Your task to perform on an android device: Go to Wikipedia Image 0: 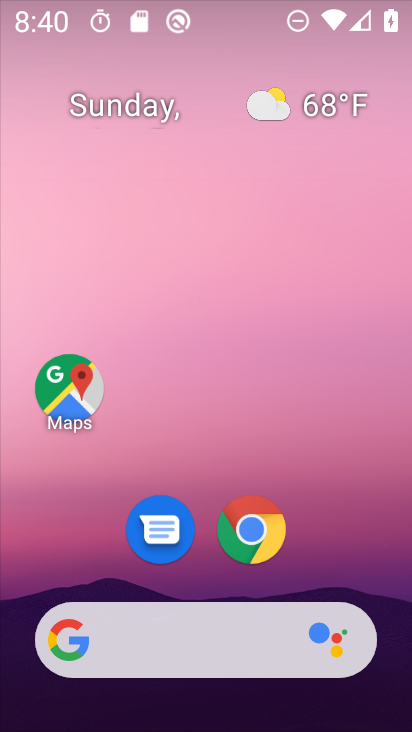
Step 0: press home button
Your task to perform on an android device: Go to Wikipedia Image 1: 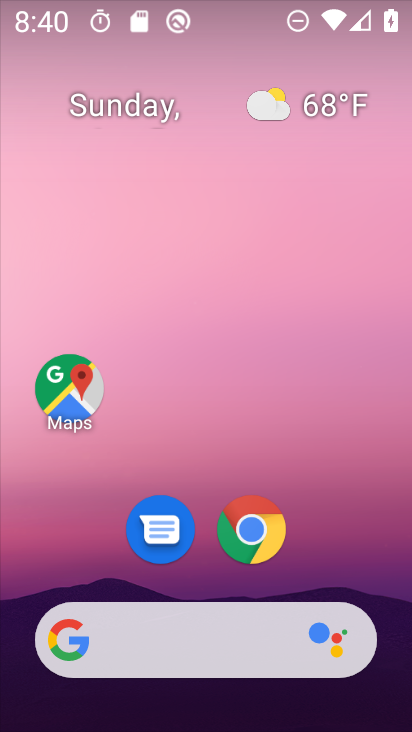
Step 1: press home button
Your task to perform on an android device: Go to Wikipedia Image 2: 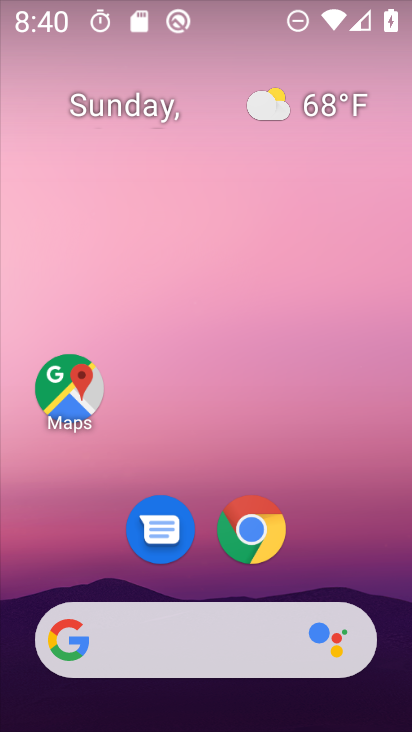
Step 2: click (248, 521)
Your task to perform on an android device: Go to Wikipedia Image 3: 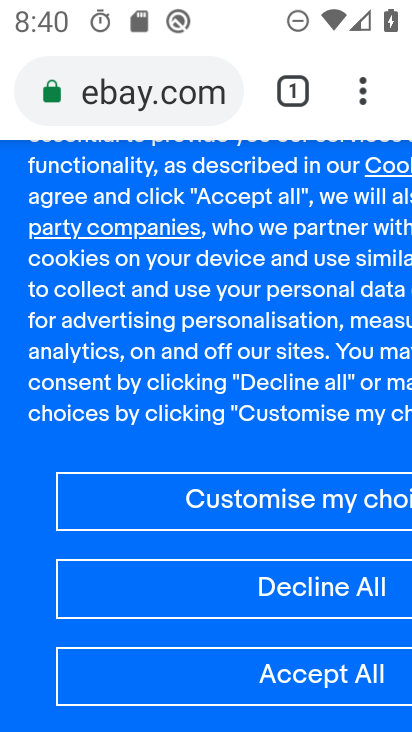
Step 3: press home button
Your task to perform on an android device: Go to Wikipedia Image 4: 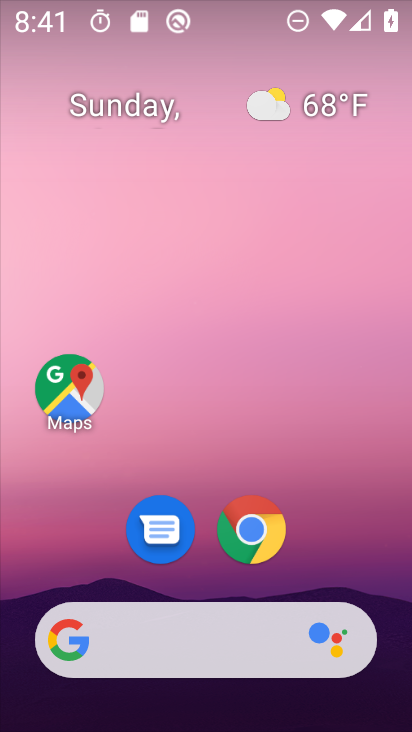
Step 4: click (248, 515)
Your task to perform on an android device: Go to Wikipedia Image 5: 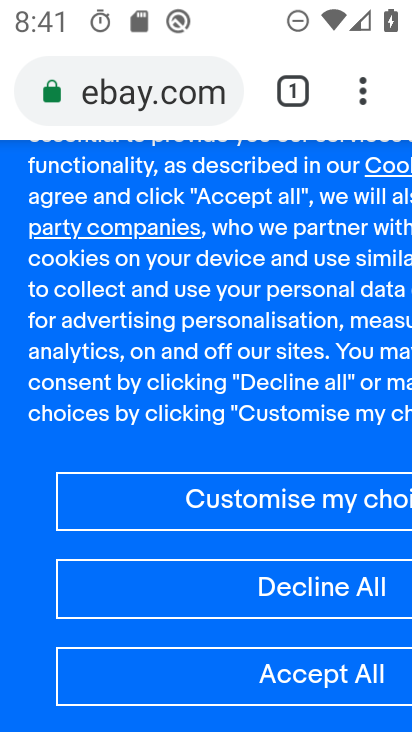
Step 5: click (293, 93)
Your task to perform on an android device: Go to Wikipedia Image 6: 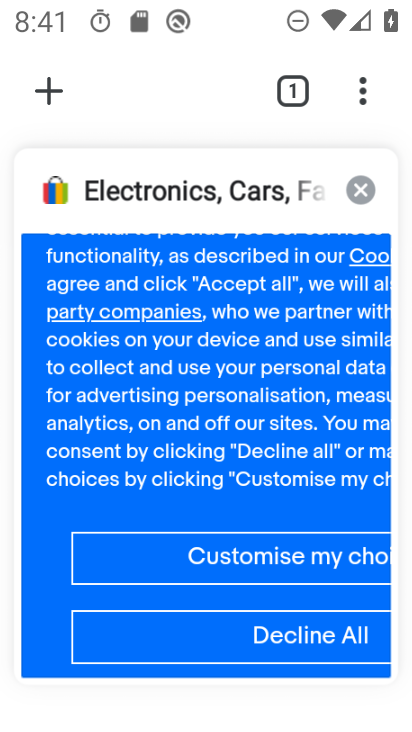
Step 6: click (357, 181)
Your task to perform on an android device: Go to Wikipedia Image 7: 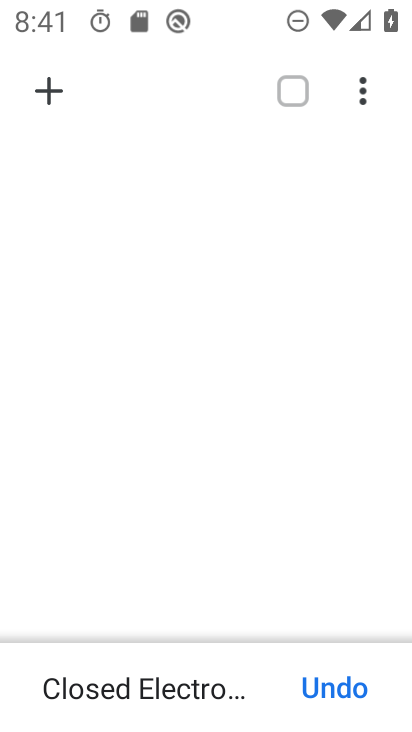
Step 7: click (55, 91)
Your task to perform on an android device: Go to Wikipedia Image 8: 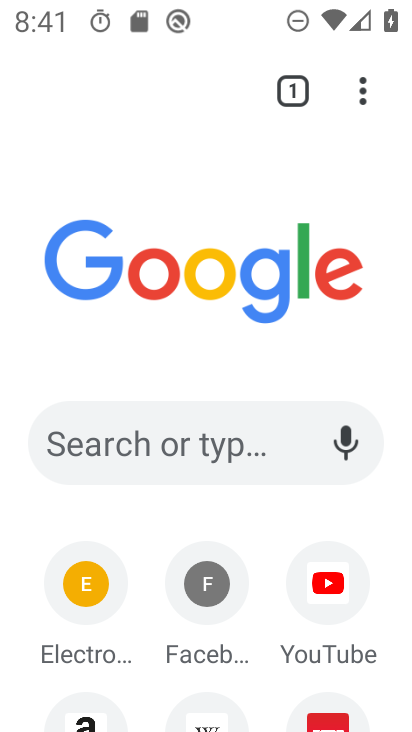
Step 8: drag from (146, 623) to (159, 277)
Your task to perform on an android device: Go to Wikipedia Image 9: 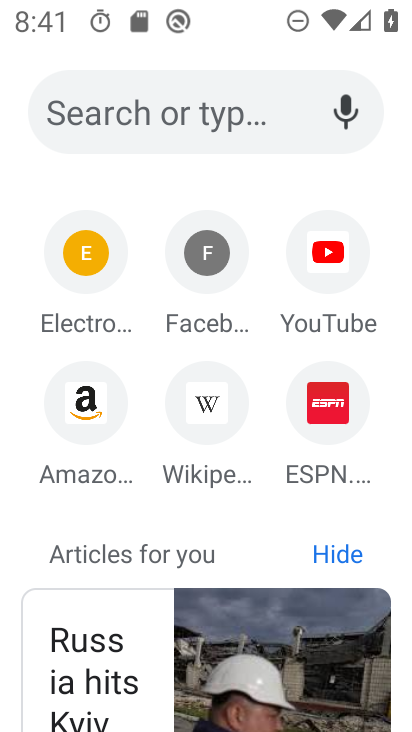
Step 9: click (204, 399)
Your task to perform on an android device: Go to Wikipedia Image 10: 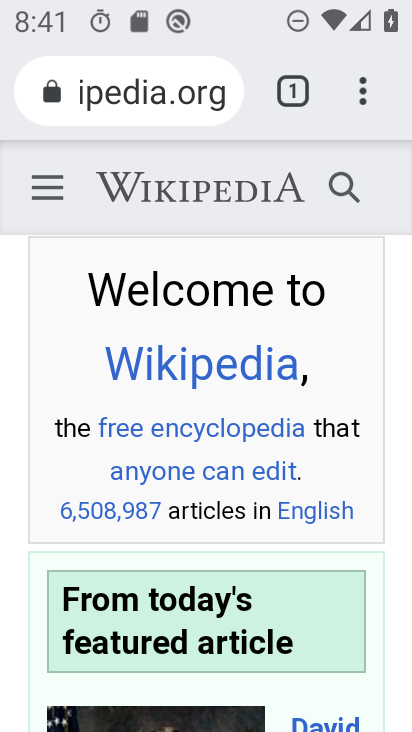
Step 10: task complete